Your task to perform on an android device: Go to settings Image 0: 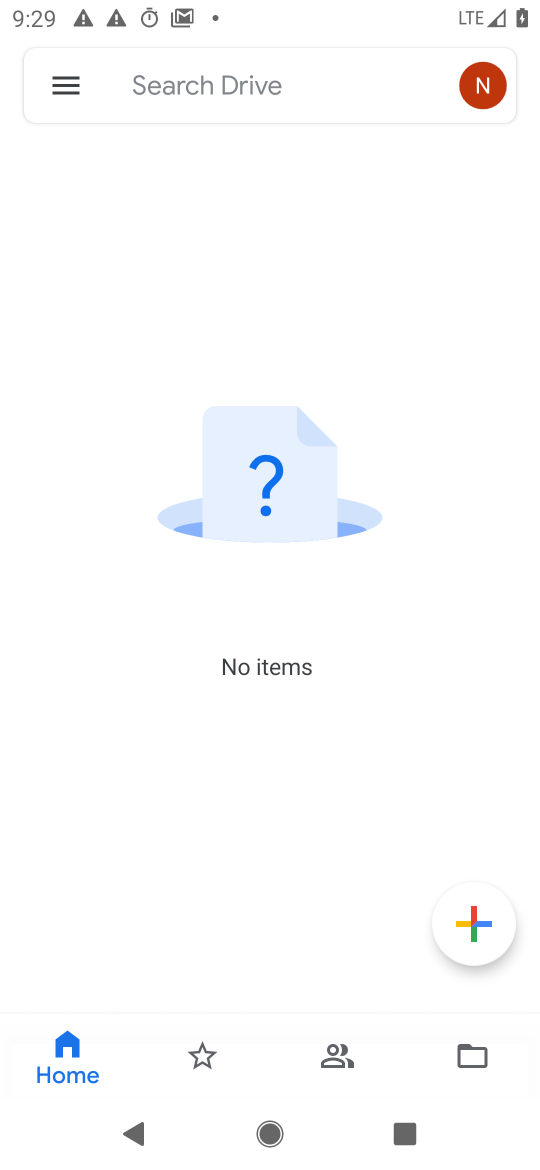
Step 0: press back button
Your task to perform on an android device: Go to settings Image 1: 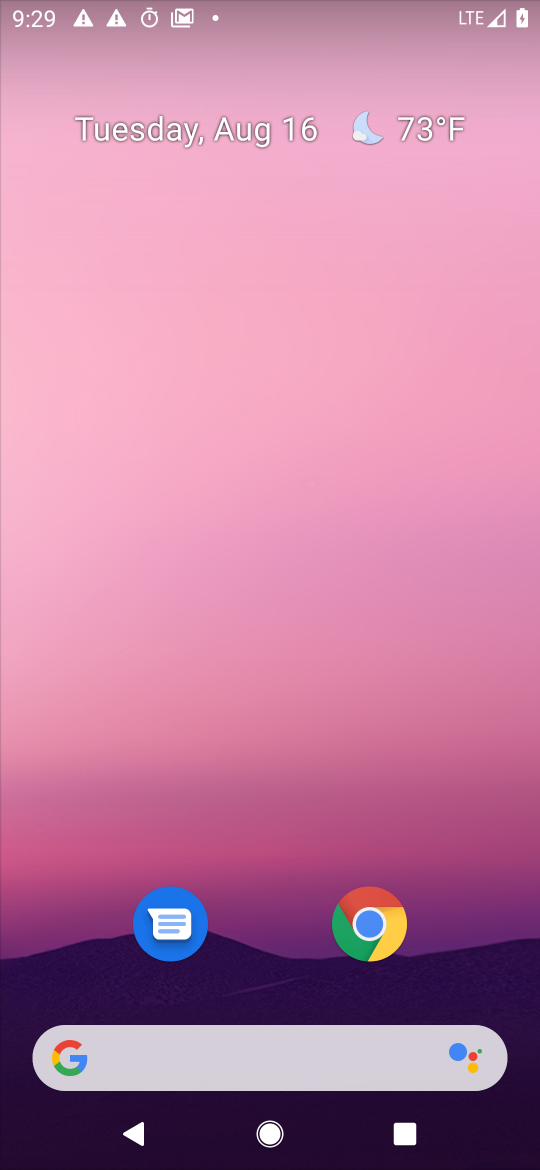
Step 1: drag from (244, 873) to (340, 66)
Your task to perform on an android device: Go to settings Image 2: 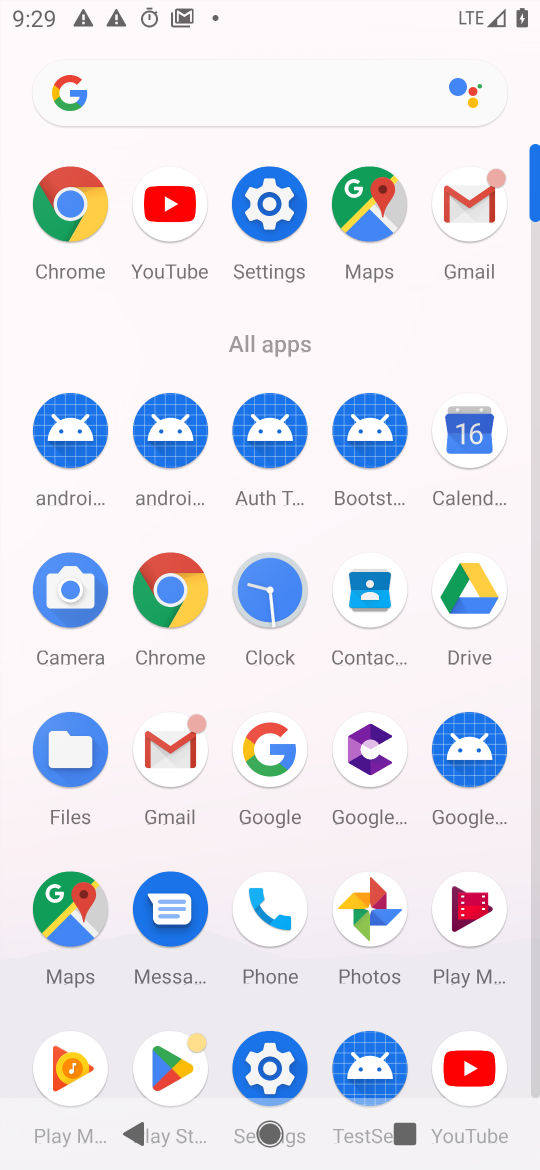
Step 2: click (277, 178)
Your task to perform on an android device: Go to settings Image 3: 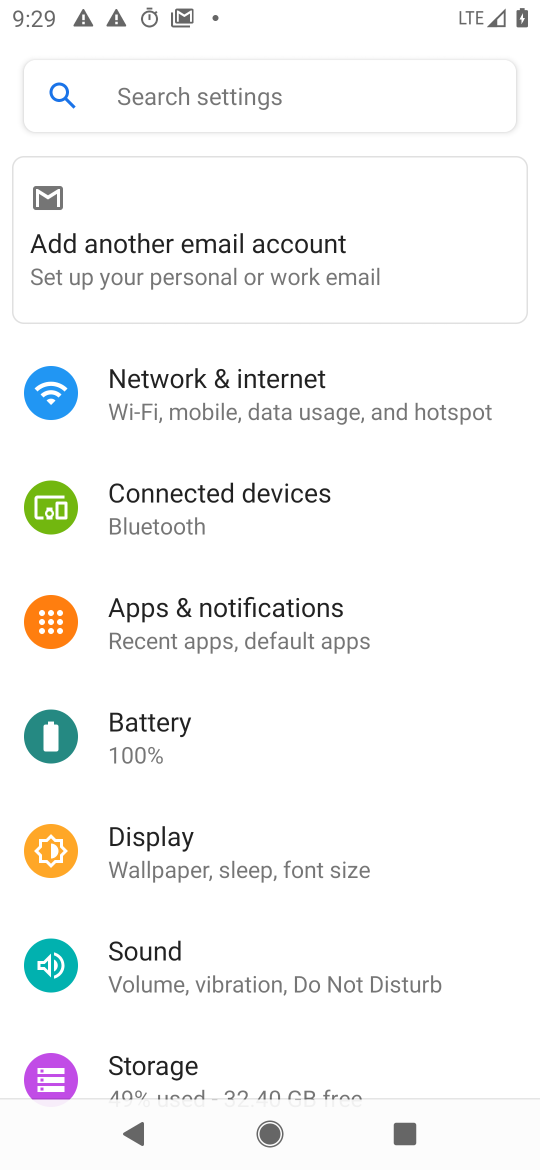
Step 3: task complete